Your task to perform on an android device: Do I have any events today? Image 0: 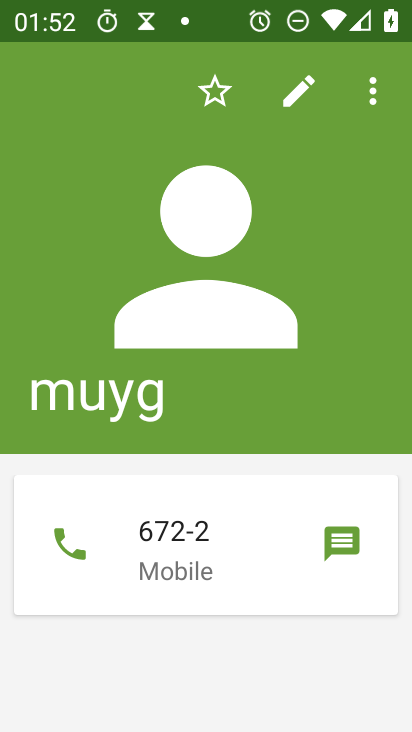
Step 0: press home button
Your task to perform on an android device: Do I have any events today? Image 1: 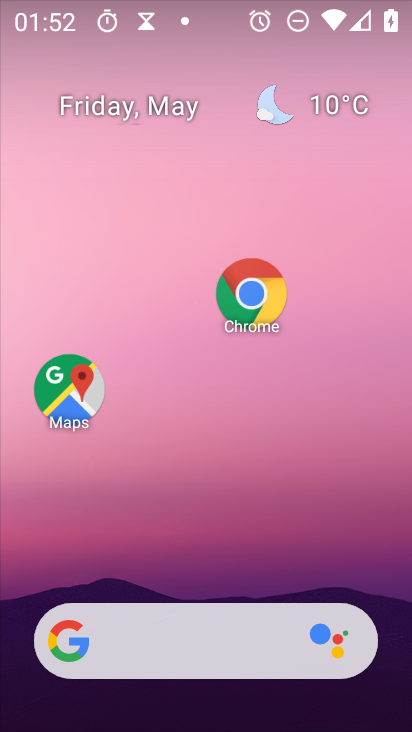
Step 1: drag from (188, 641) to (318, 185)
Your task to perform on an android device: Do I have any events today? Image 2: 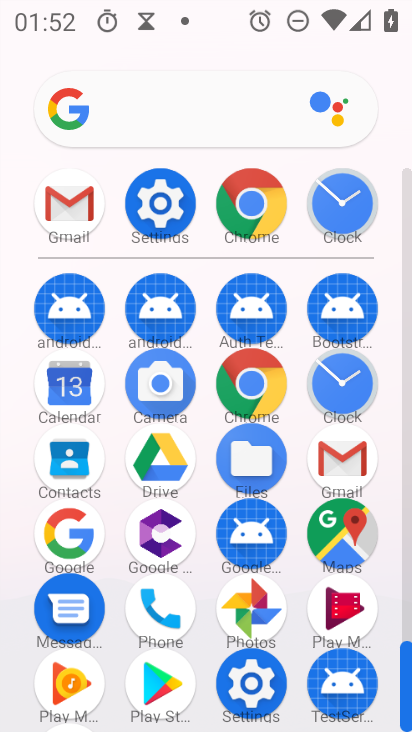
Step 2: click (56, 392)
Your task to perform on an android device: Do I have any events today? Image 3: 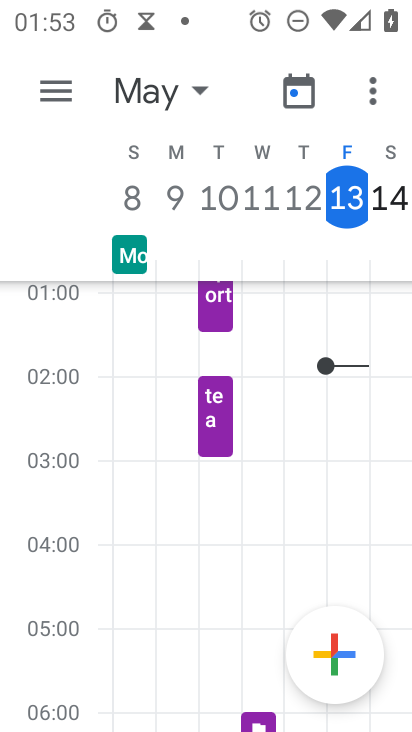
Step 3: click (144, 105)
Your task to perform on an android device: Do I have any events today? Image 4: 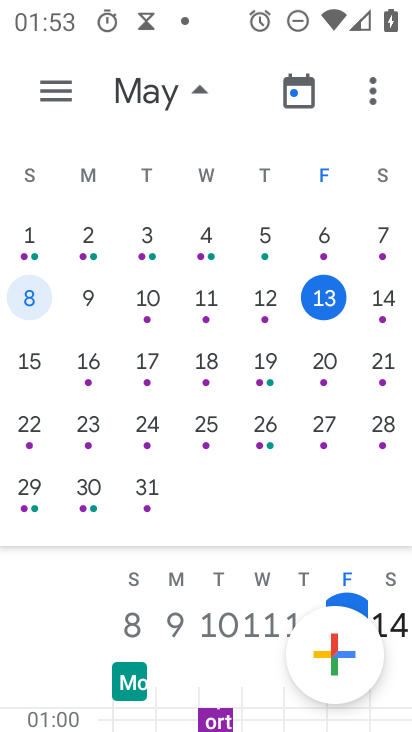
Step 4: click (260, 293)
Your task to perform on an android device: Do I have any events today? Image 5: 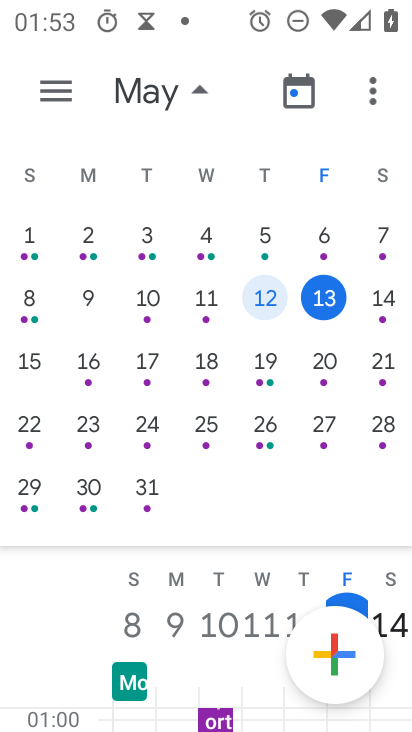
Step 5: click (53, 105)
Your task to perform on an android device: Do I have any events today? Image 6: 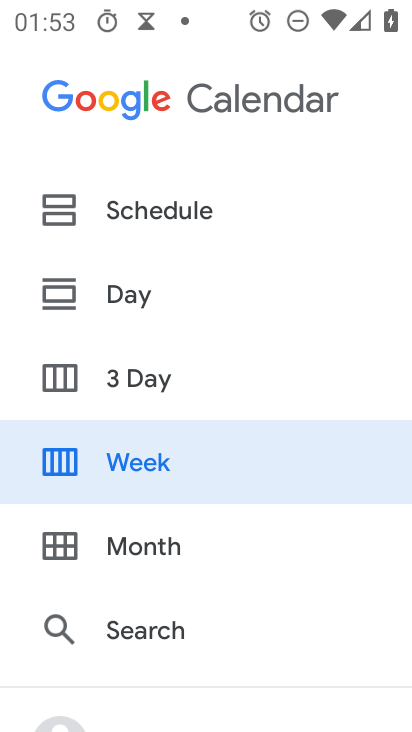
Step 6: click (184, 212)
Your task to perform on an android device: Do I have any events today? Image 7: 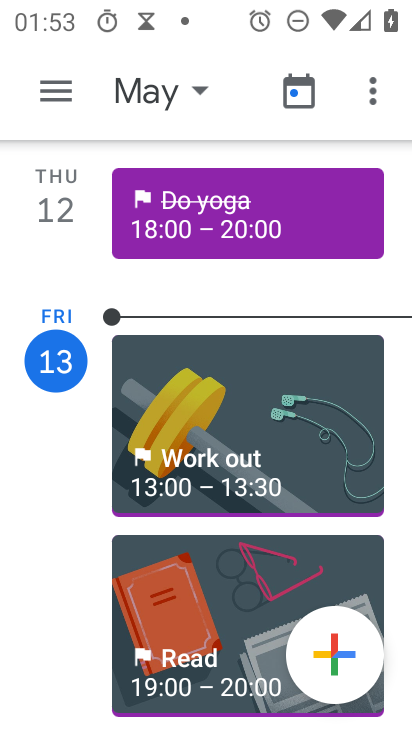
Step 7: click (218, 247)
Your task to perform on an android device: Do I have any events today? Image 8: 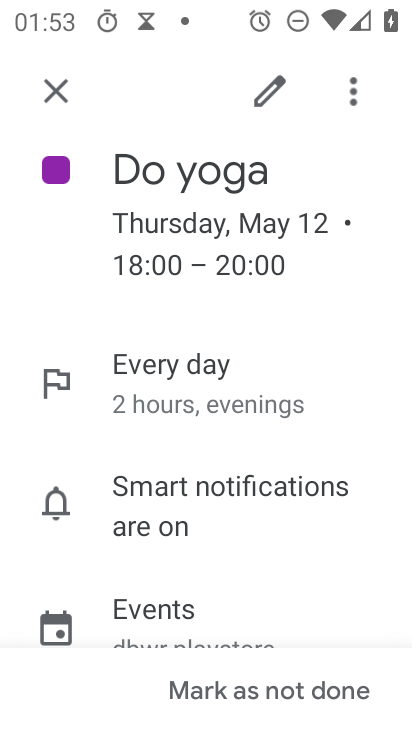
Step 8: task complete